Your task to perform on an android device: Open Youtube and go to the subscriptions tab Image 0: 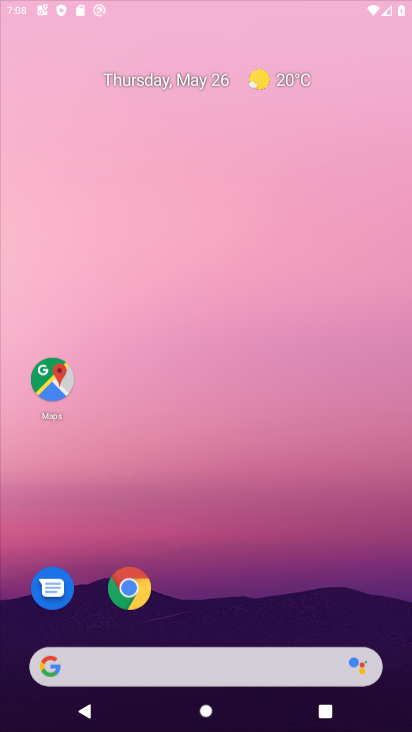
Step 0: drag from (340, 225) to (300, 44)
Your task to perform on an android device: Open Youtube and go to the subscriptions tab Image 1: 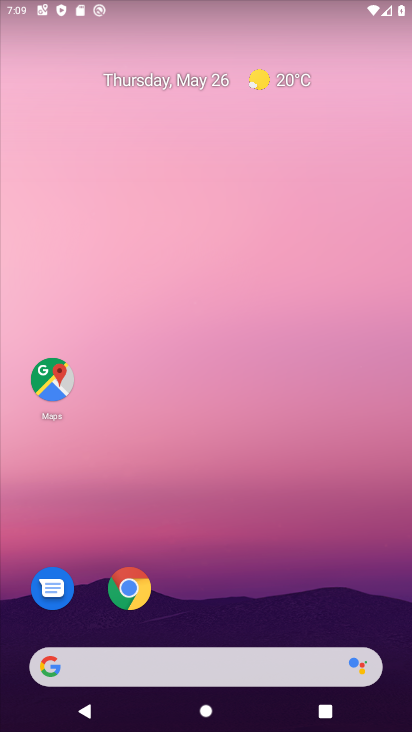
Step 1: drag from (320, 617) to (275, 49)
Your task to perform on an android device: Open Youtube and go to the subscriptions tab Image 2: 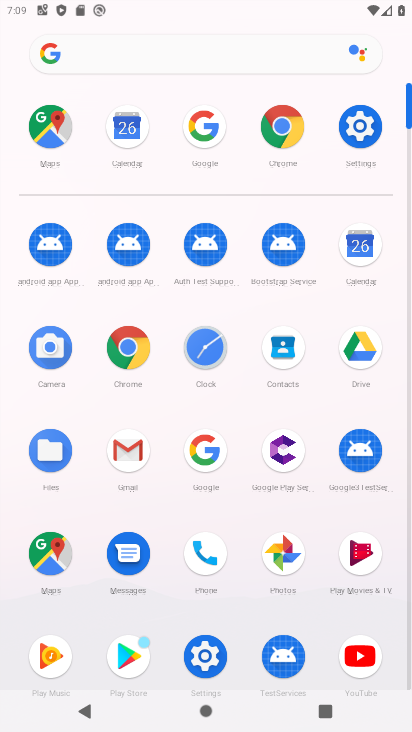
Step 2: click (370, 653)
Your task to perform on an android device: Open Youtube and go to the subscriptions tab Image 3: 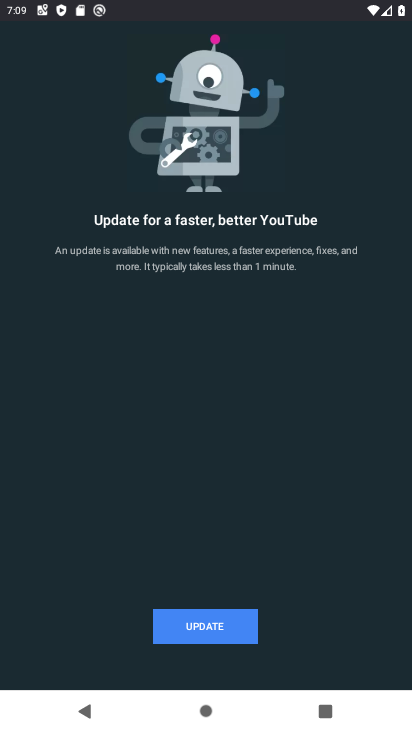
Step 3: click (244, 627)
Your task to perform on an android device: Open Youtube and go to the subscriptions tab Image 4: 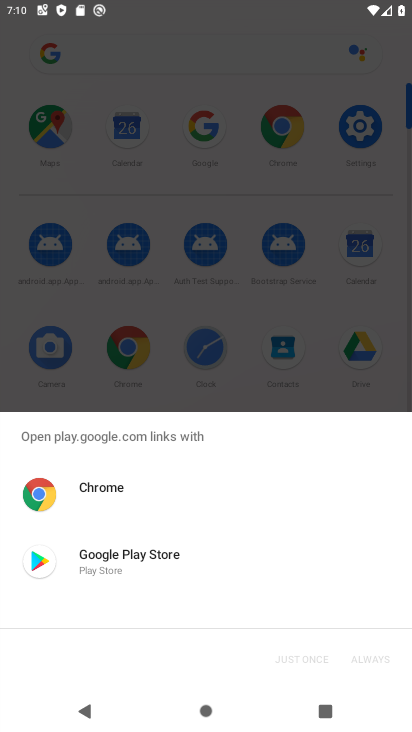
Step 4: click (108, 551)
Your task to perform on an android device: Open Youtube and go to the subscriptions tab Image 5: 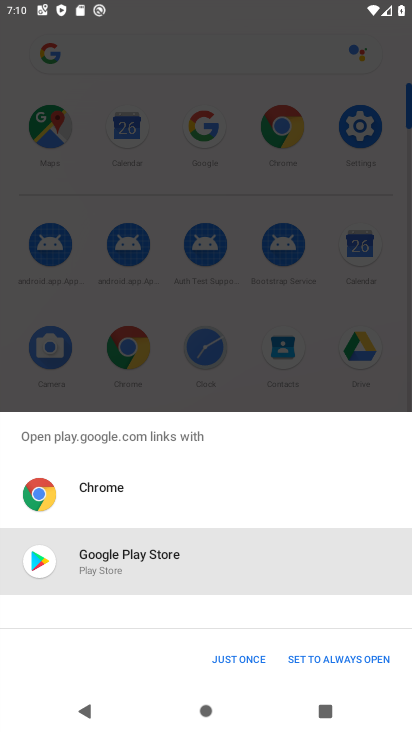
Step 5: click (232, 660)
Your task to perform on an android device: Open Youtube and go to the subscriptions tab Image 6: 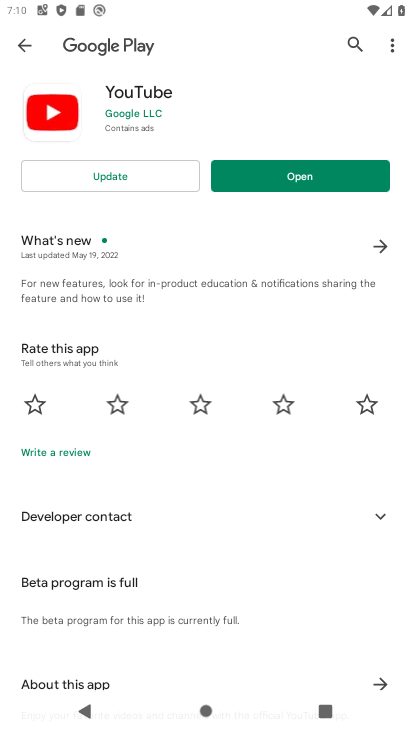
Step 6: click (125, 173)
Your task to perform on an android device: Open Youtube and go to the subscriptions tab Image 7: 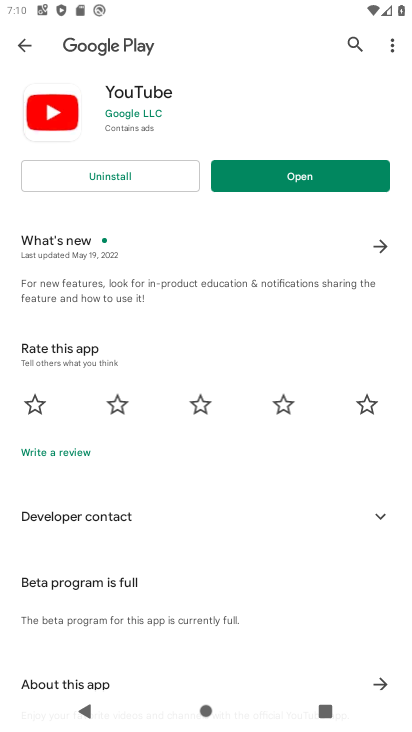
Step 7: click (267, 178)
Your task to perform on an android device: Open Youtube and go to the subscriptions tab Image 8: 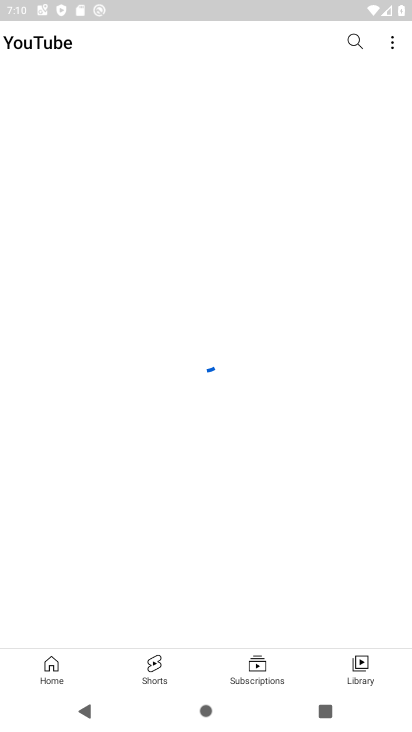
Step 8: click (245, 670)
Your task to perform on an android device: Open Youtube and go to the subscriptions tab Image 9: 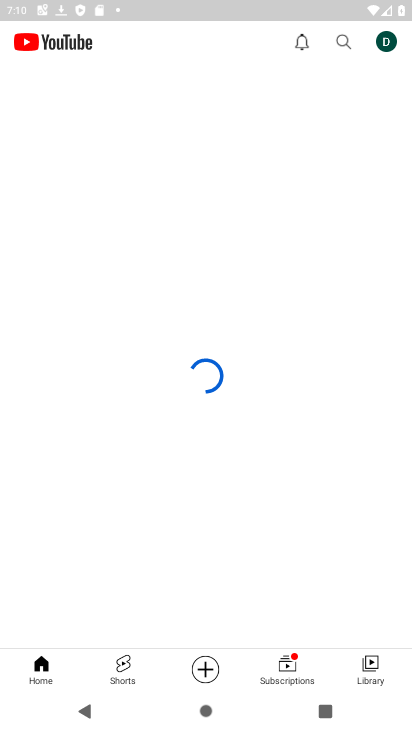
Step 9: click (293, 673)
Your task to perform on an android device: Open Youtube and go to the subscriptions tab Image 10: 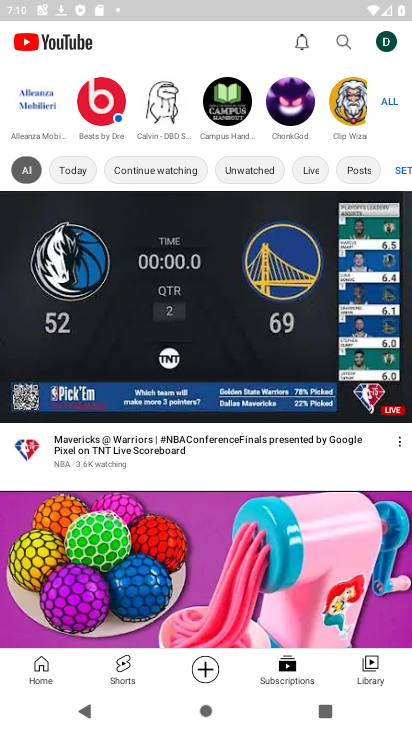
Step 10: task complete